Your task to perform on an android device: When is my next meeting? Image 0: 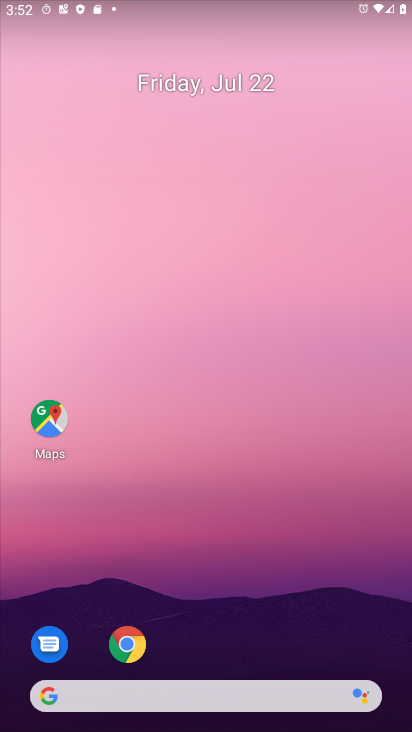
Step 0: press home button
Your task to perform on an android device: When is my next meeting? Image 1: 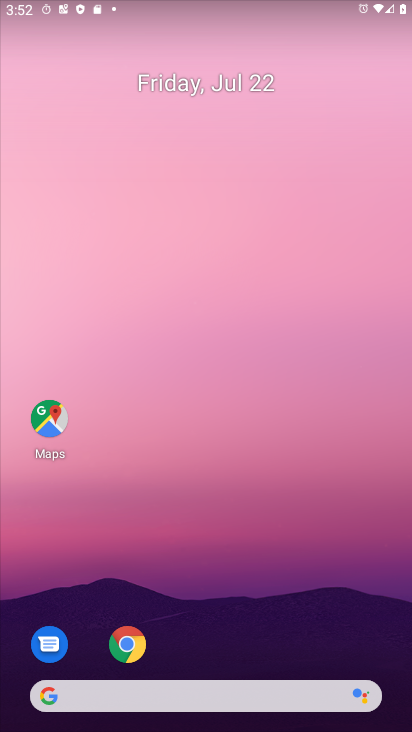
Step 1: drag from (268, 654) to (248, 44)
Your task to perform on an android device: When is my next meeting? Image 2: 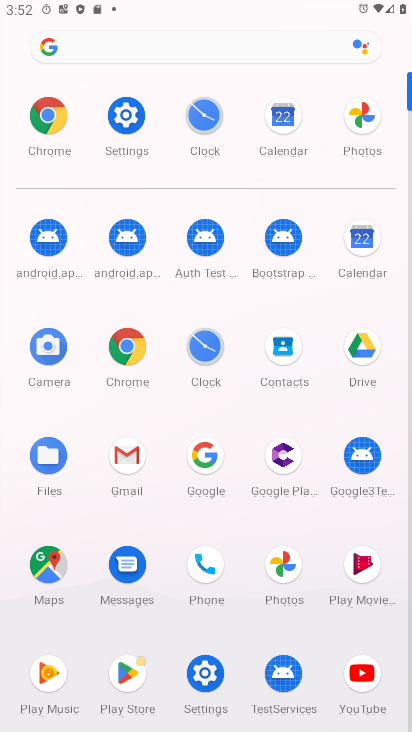
Step 2: click (363, 244)
Your task to perform on an android device: When is my next meeting? Image 3: 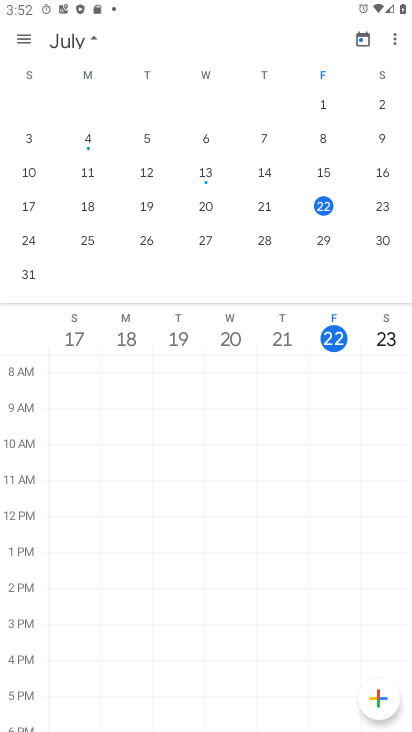
Step 3: click (21, 30)
Your task to perform on an android device: When is my next meeting? Image 4: 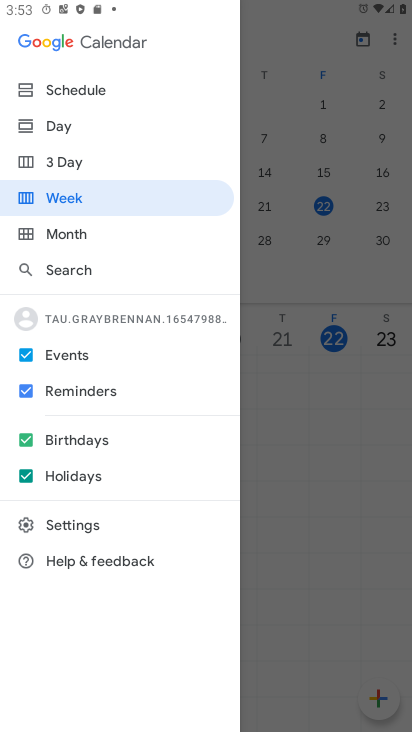
Step 4: click (64, 93)
Your task to perform on an android device: When is my next meeting? Image 5: 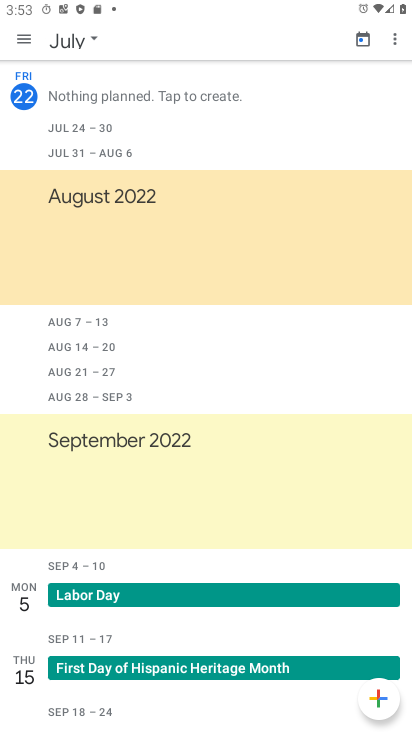
Step 5: task complete